Your task to perform on an android device: visit the assistant section in the google photos Image 0: 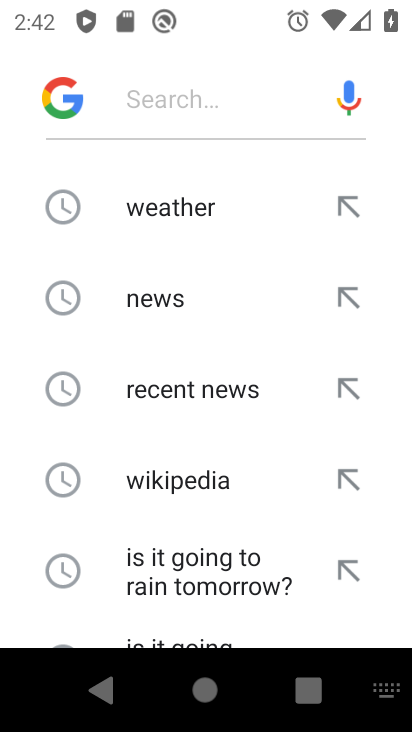
Step 0: press home button
Your task to perform on an android device: visit the assistant section in the google photos Image 1: 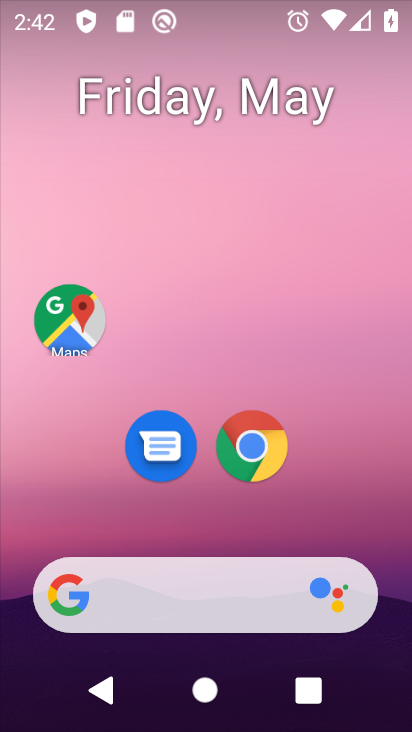
Step 1: drag from (388, 581) to (278, 155)
Your task to perform on an android device: visit the assistant section in the google photos Image 2: 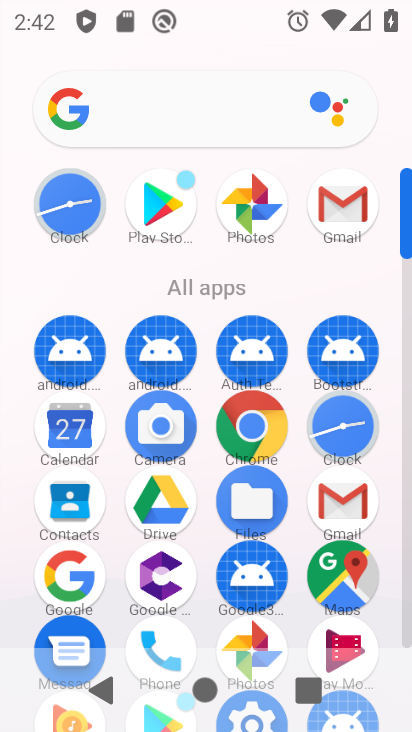
Step 2: click (266, 181)
Your task to perform on an android device: visit the assistant section in the google photos Image 3: 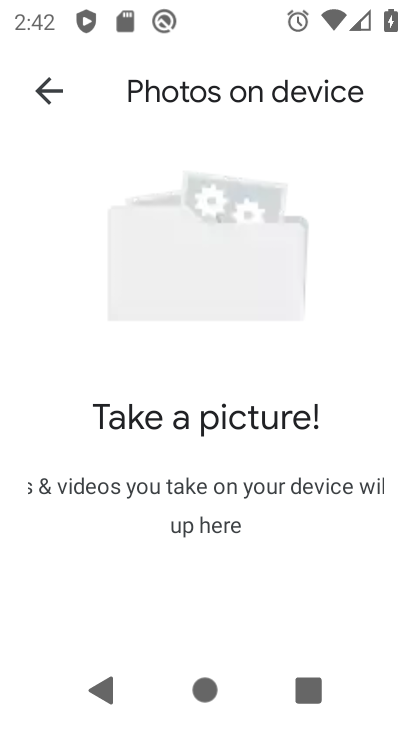
Step 3: click (54, 98)
Your task to perform on an android device: visit the assistant section in the google photos Image 4: 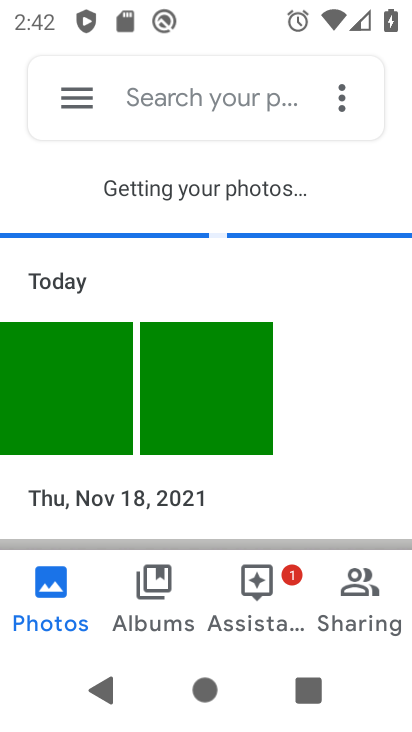
Step 4: click (256, 586)
Your task to perform on an android device: visit the assistant section in the google photos Image 5: 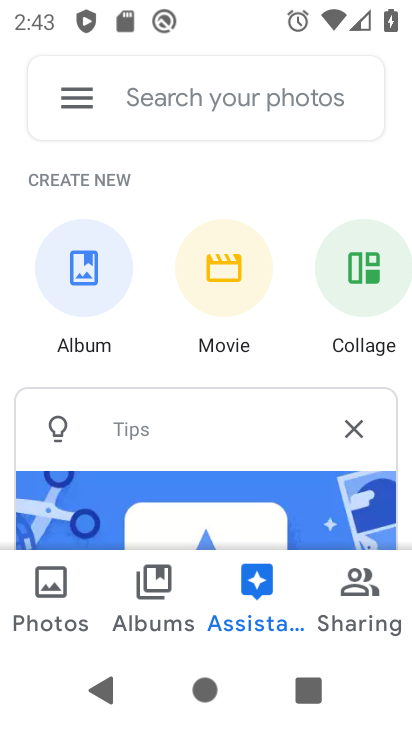
Step 5: task complete